Your task to perform on an android device: Open the stopwatch Image 0: 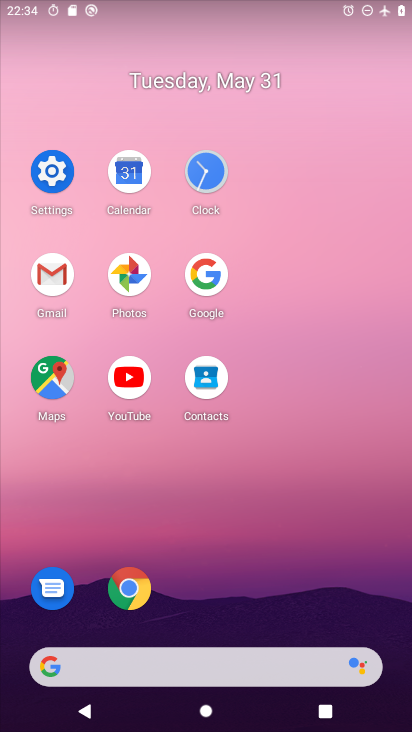
Step 0: click (196, 164)
Your task to perform on an android device: Open the stopwatch Image 1: 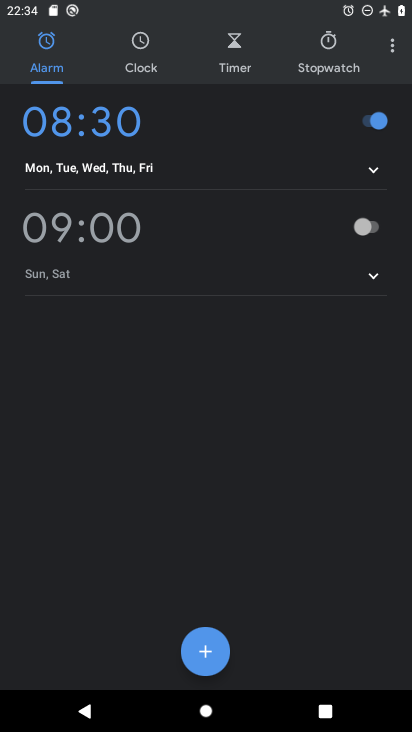
Step 1: click (322, 46)
Your task to perform on an android device: Open the stopwatch Image 2: 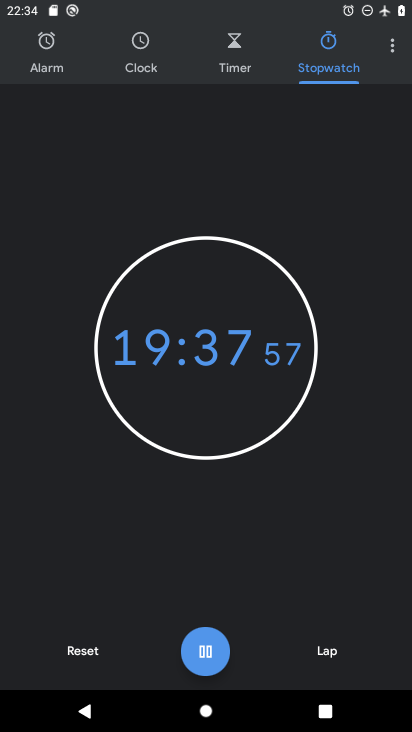
Step 2: task complete